Your task to perform on an android device: toggle notification dots Image 0: 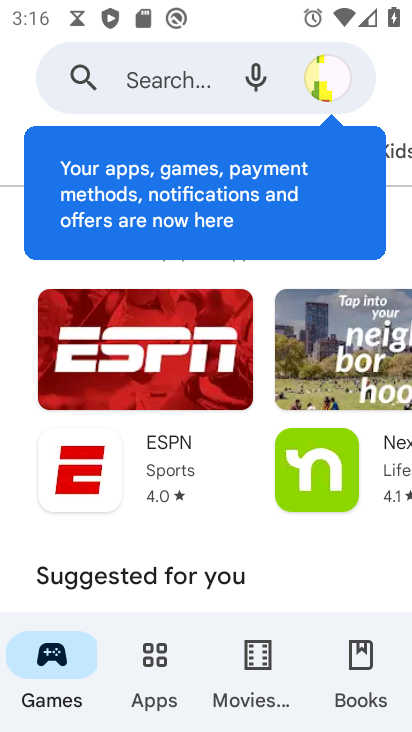
Step 0: press home button
Your task to perform on an android device: toggle notification dots Image 1: 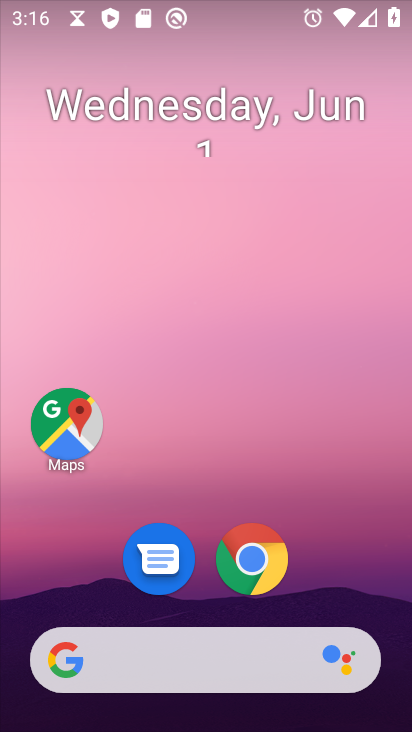
Step 1: drag from (331, 510) to (332, 73)
Your task to perform on an android device: toggle notification dots Image 2: 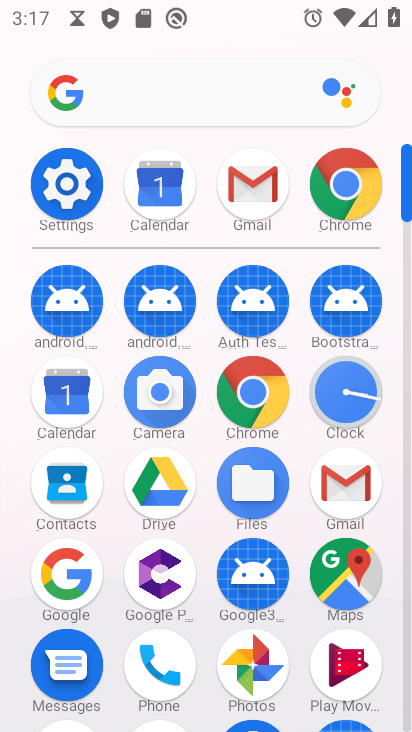
Step 2: click (67, 187)
Your task to perform on an android device: toggle notification dots Image 3: 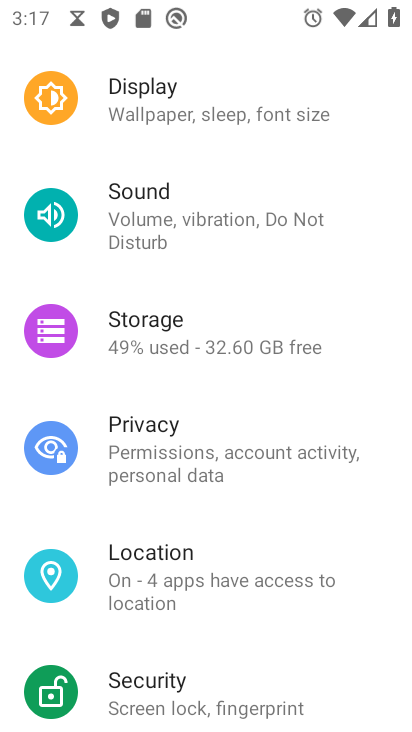
Step 3: drag from (207, 176) to (198, 596)
Your task to perform on an android device: toggle notification dots Image 4: 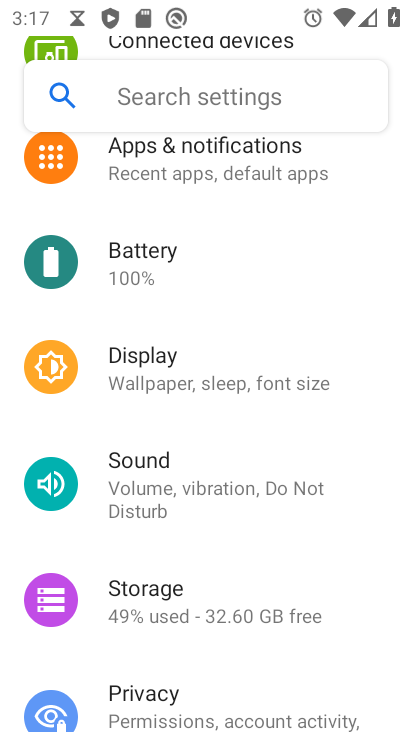
Step 4: click (240, 166)
Your task to perform on an android device: toggle notification dots Image 5: 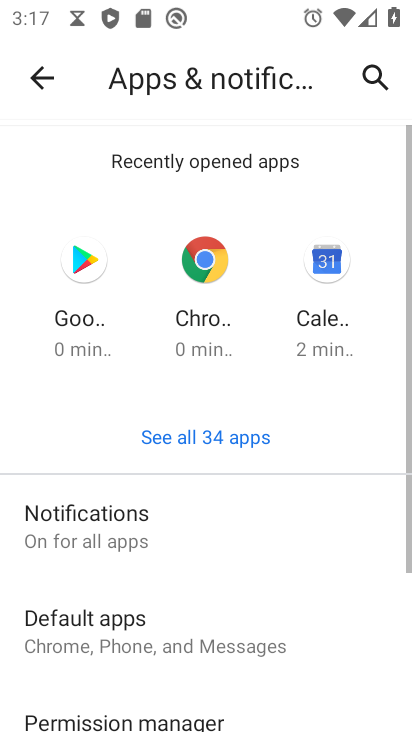
Step 5: click (94, 525)
Your task to perform on an android device: toggle notification dots Image 6: 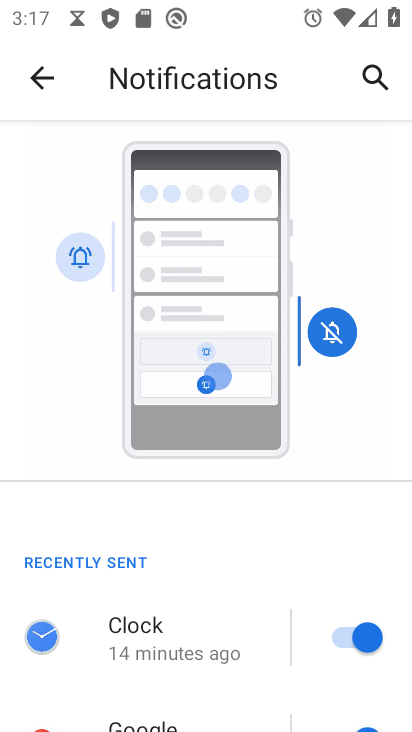
Step 6: drag from (177, 613) to (189, 36)
Your task to perform on an android device: toggle notification dots Image 7: 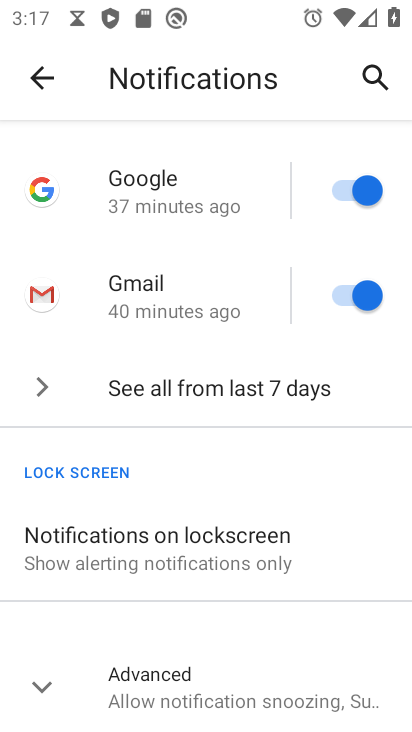
Step 7: click (212, 681)
Your task to perform on an android device: toggle notification dots Image 8: 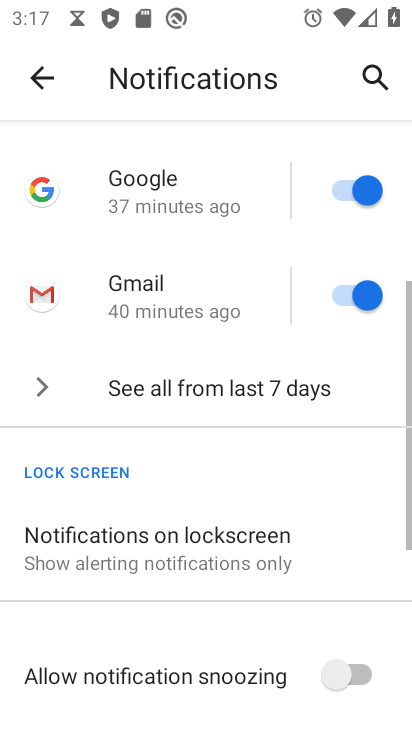
Step 8: drag from (209, 677) to (210, 280)
Your task to perform on an android device: toggle notification dots Image 9: 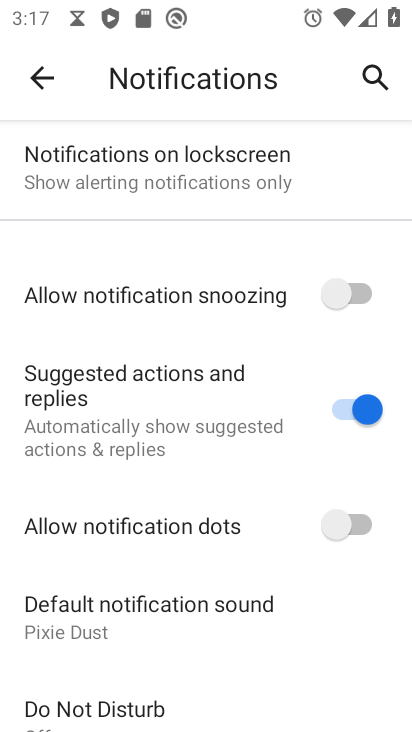
Step 9: click (340, 532)
Your task to perform on an android device: toggle notification dots Image 10: 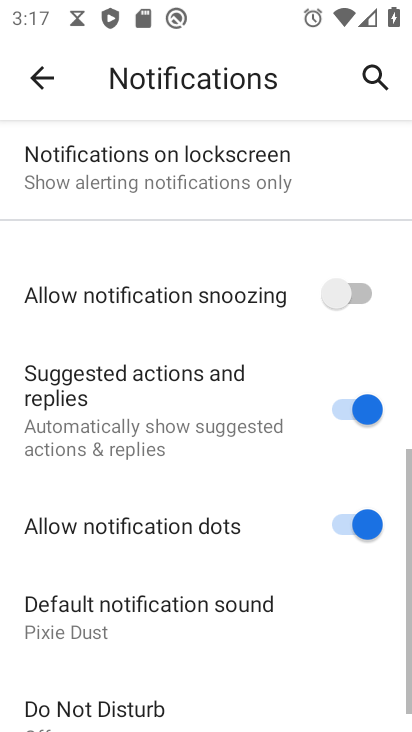
Step 10: task complete